Your task to perform on an android device: move an email to a new category in the gmail app Image 0: 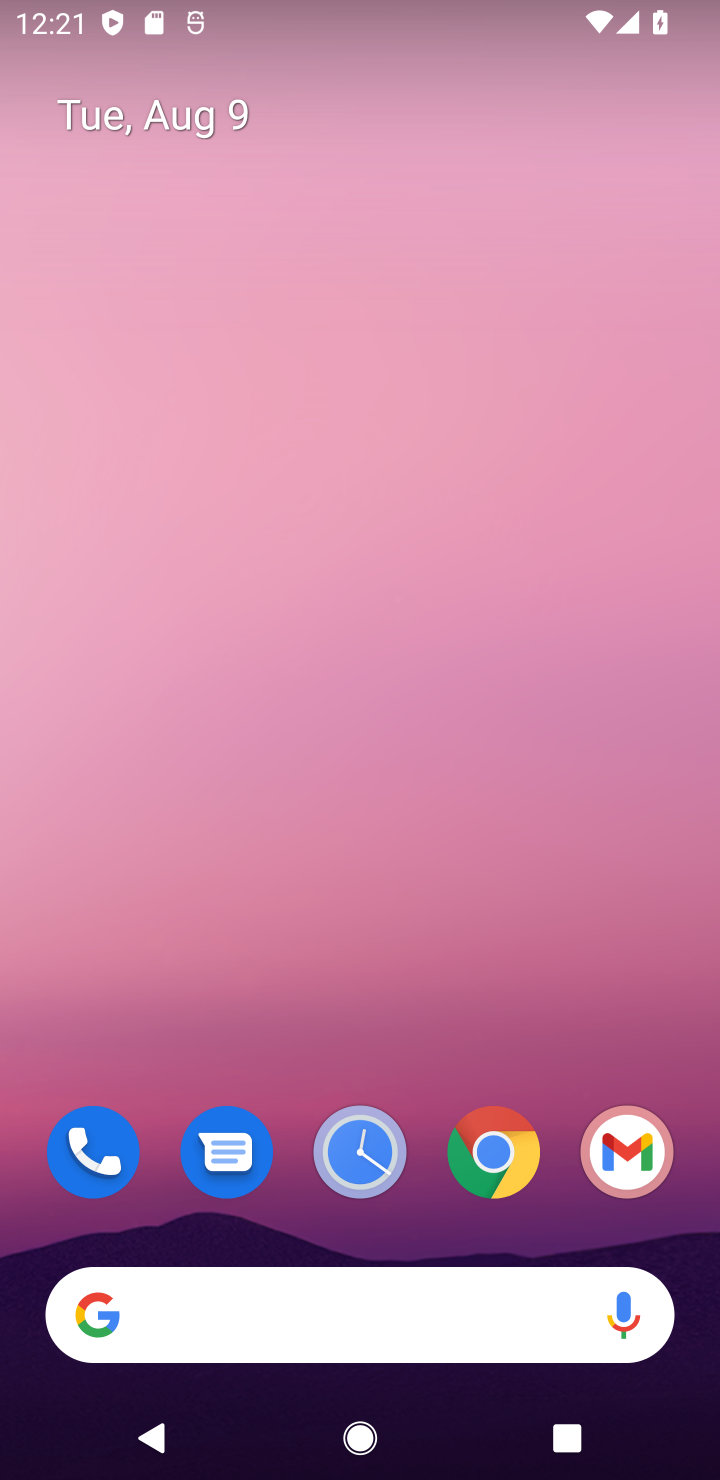
Step 0: drag from (393, 1071) to (342, 69)
Your task to perform on an android device: move an email to a new category in the gmail app Image 1: 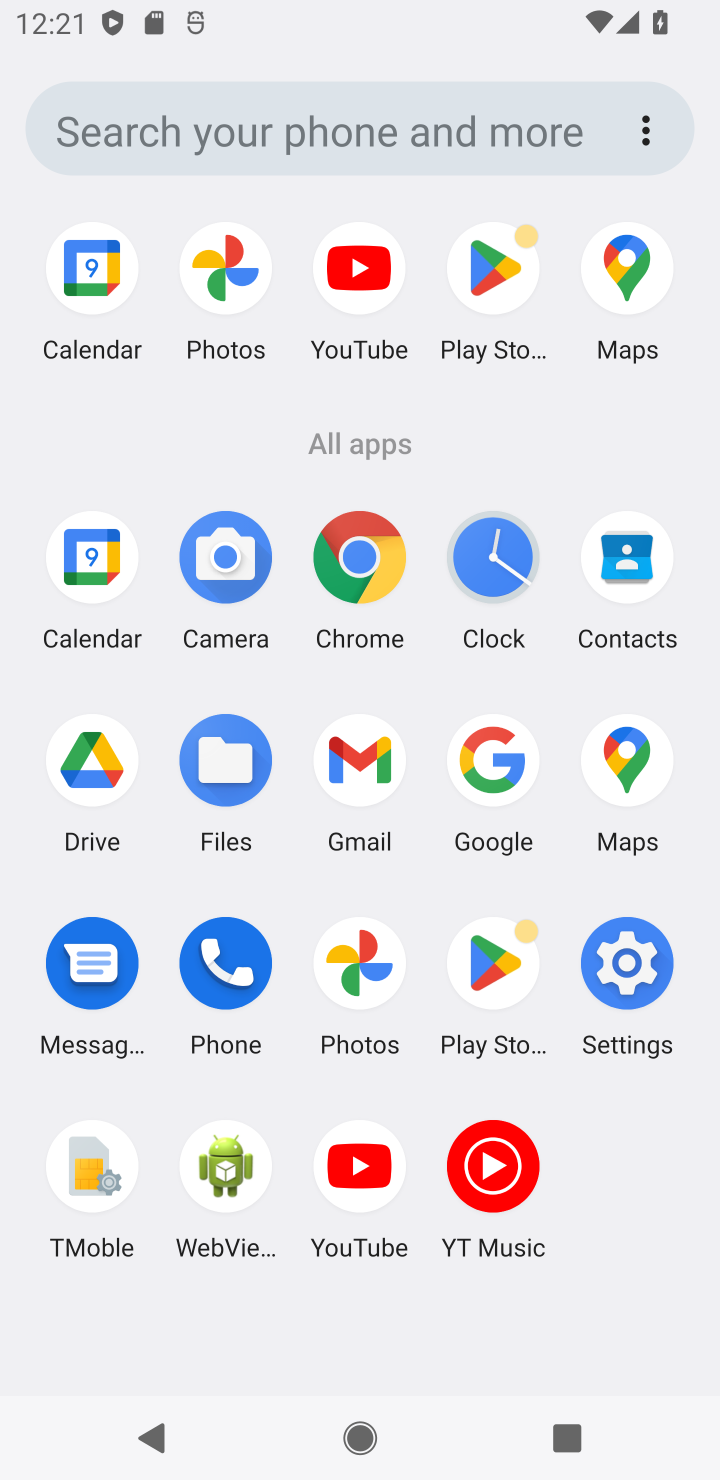
Step 1: click (338, 756)
Your task to perform on an android device: move an email to a new category in the gmail app Image 2: 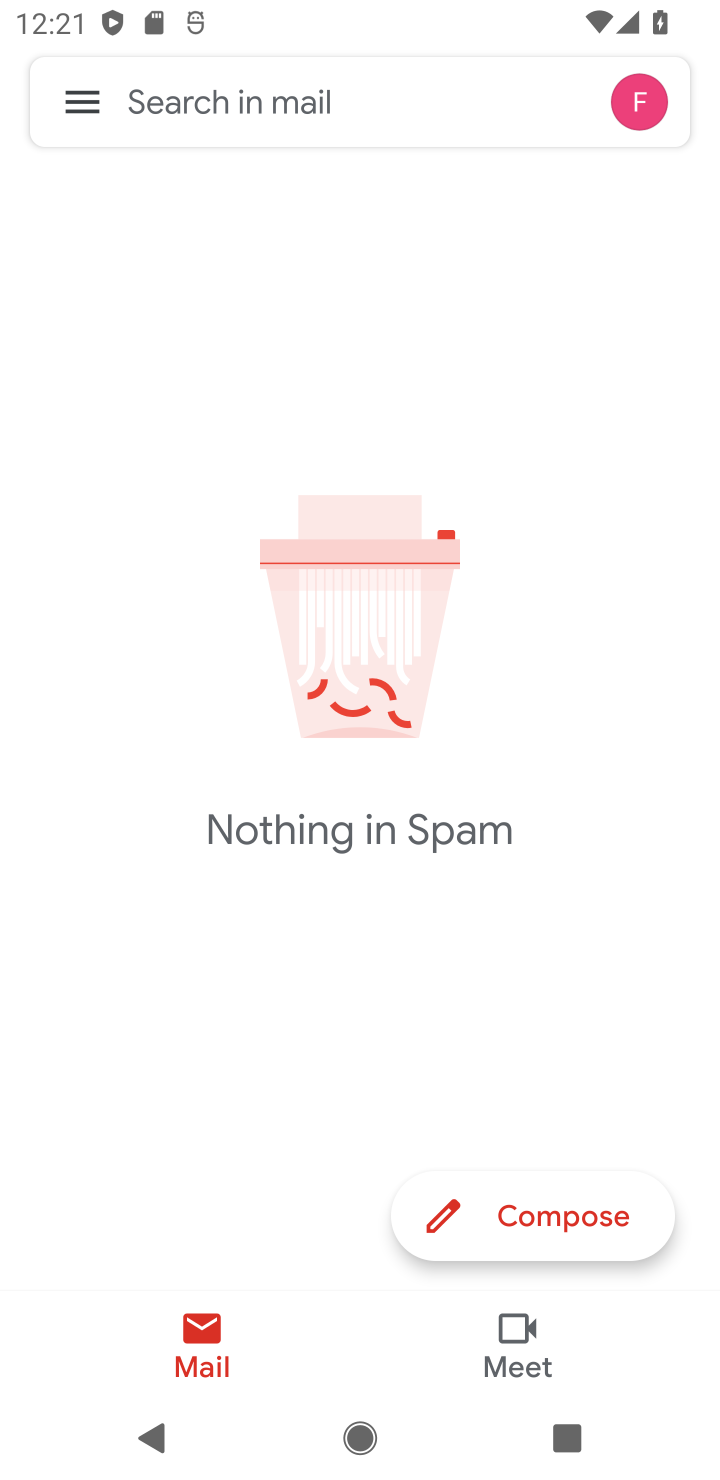
Step 2: click (75, 112)
Your task to perform on an android device: move an email to a new category in the gmail app Image 3: 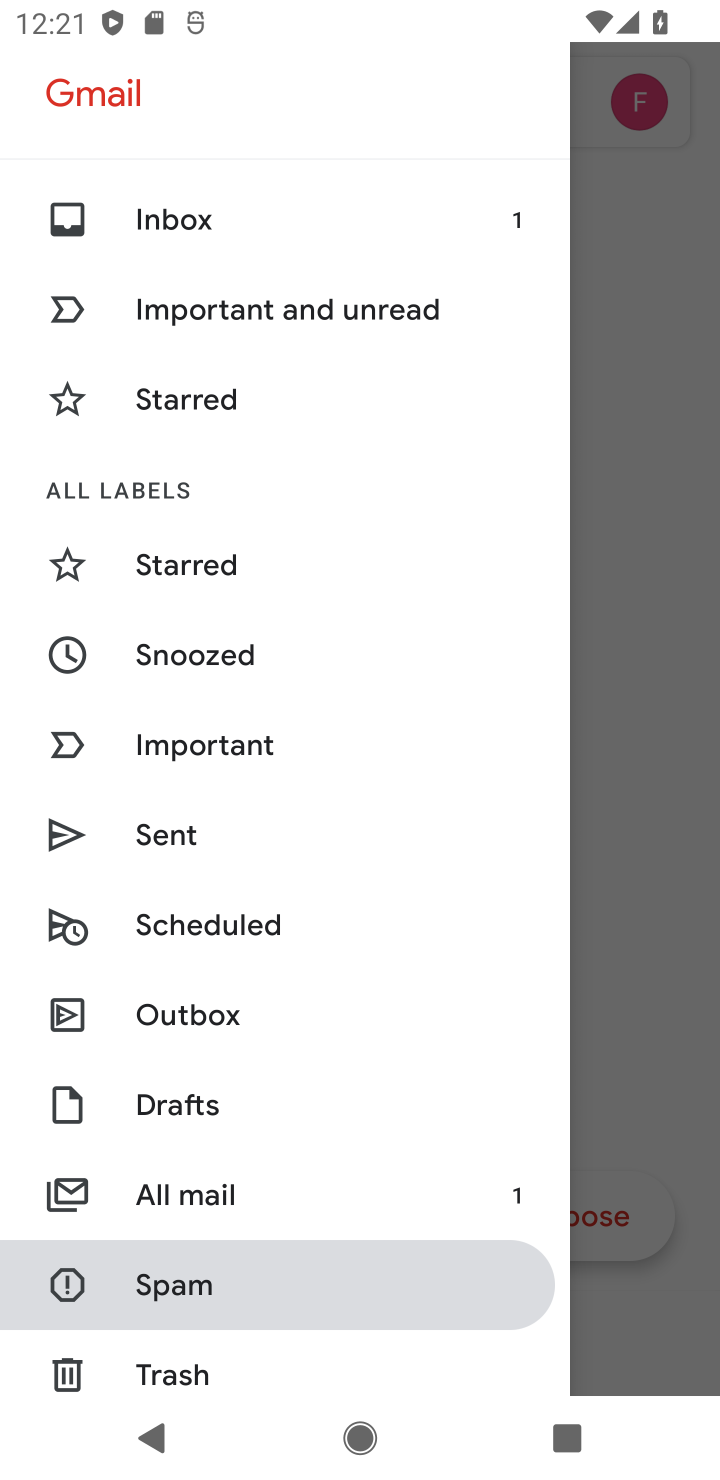
Step 3: drag from (311, 1222) to (286, 843)
Your task to perform on an android device: move an email to a new category in the gmail app Image 4: 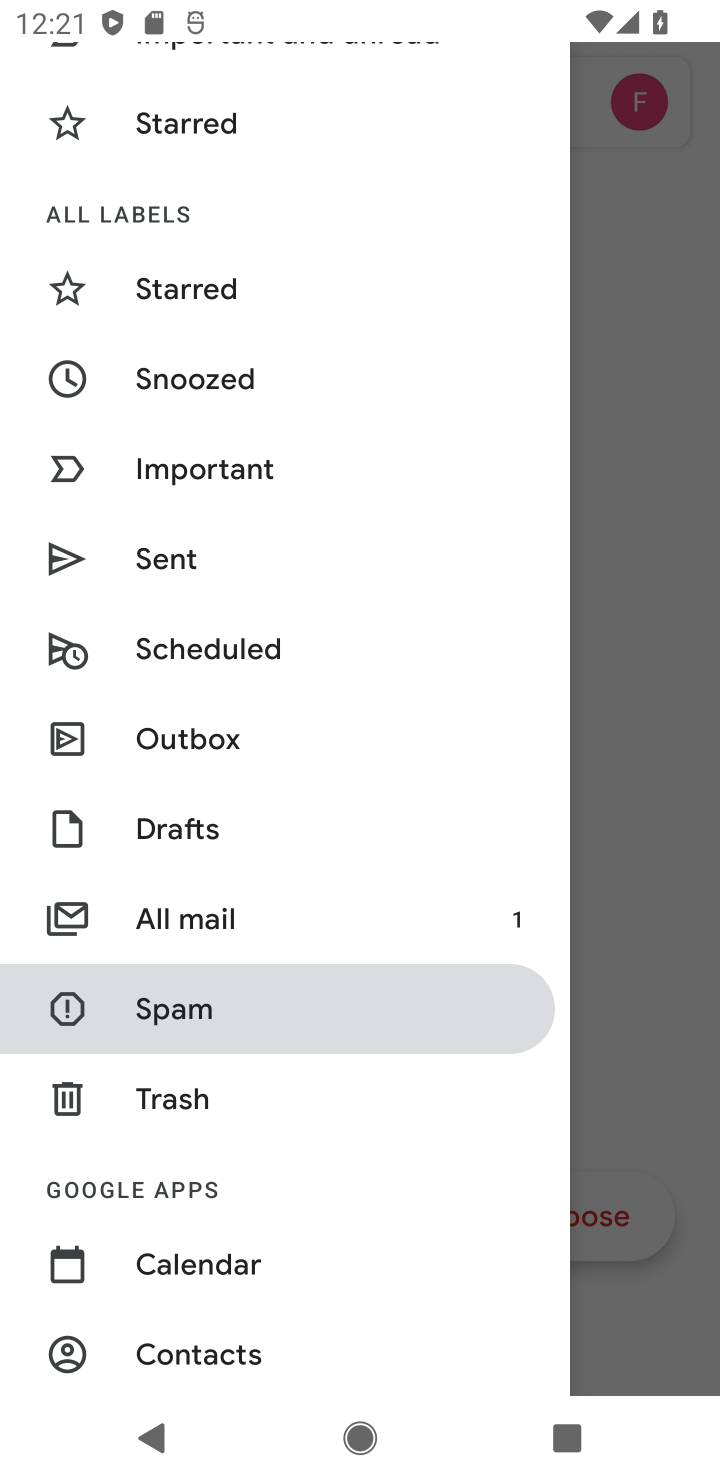
Step 4: click (200, 908)
Your task to perform on an android device: move an email to a new category in the gmail app Image 5: 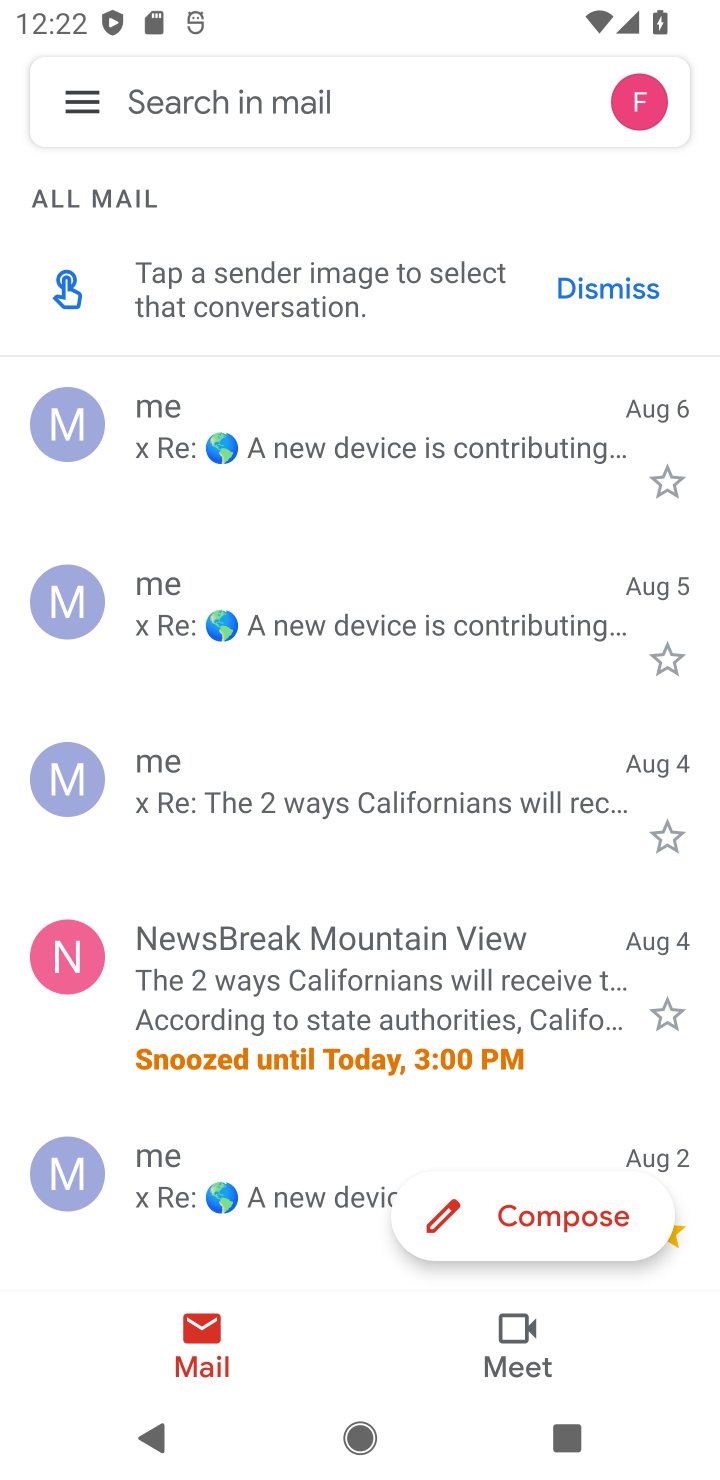
Step 5: click (223, 797)
Your task to perform on an android device: move an email to a new category in the gmail app Image 6: 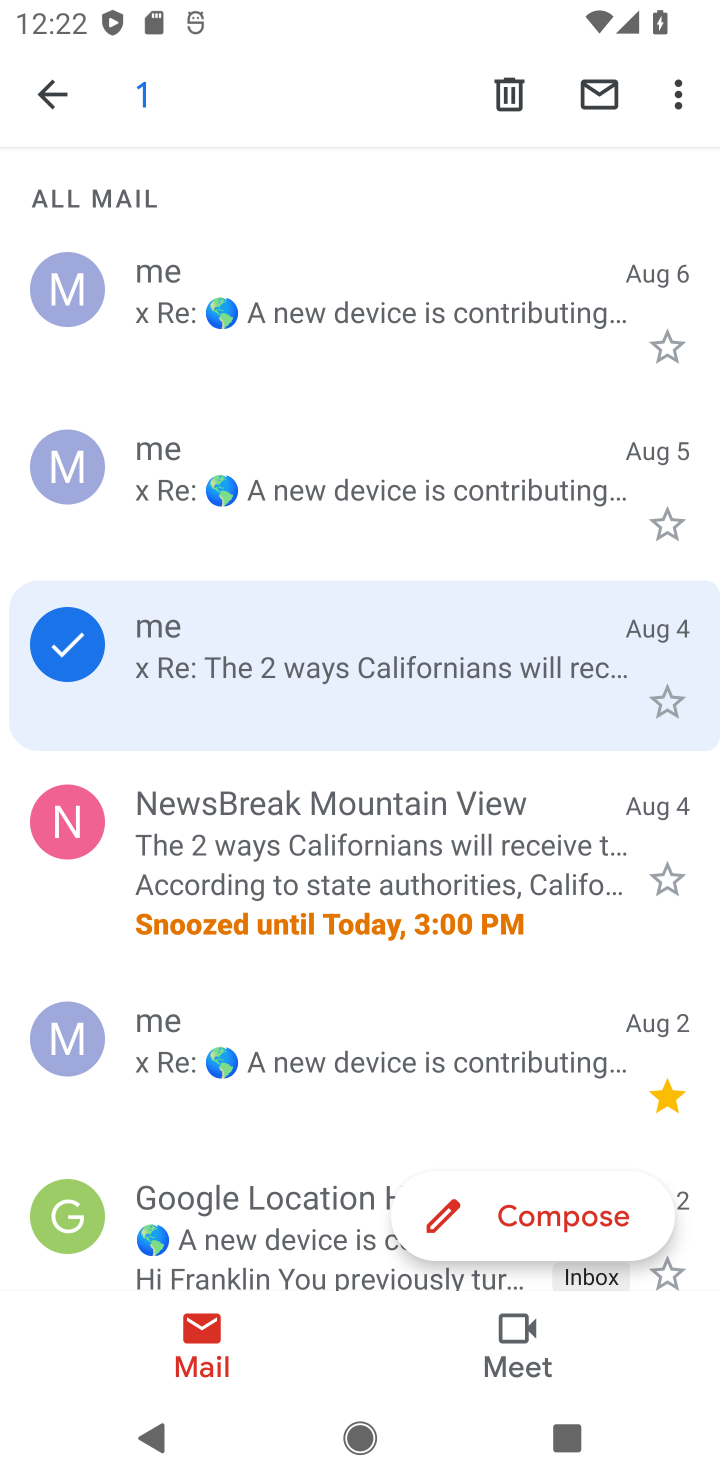
Step 6: click (676, 82)
Your task to perform on an android device: move an email to a new category in the gmail app Image 7: 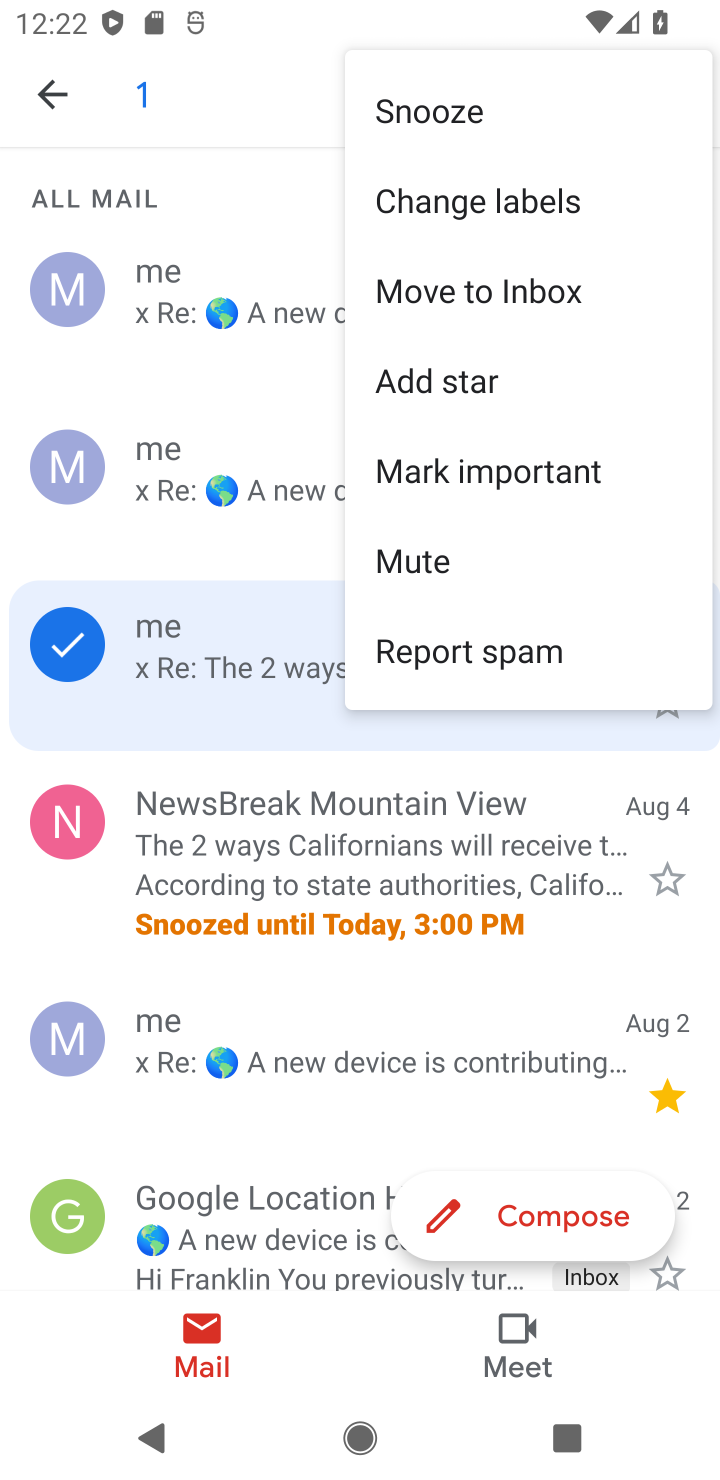
Step 7: click (463, 299)
Your task to perform on an android device: move an email to a new category in the gmail app Image 8: 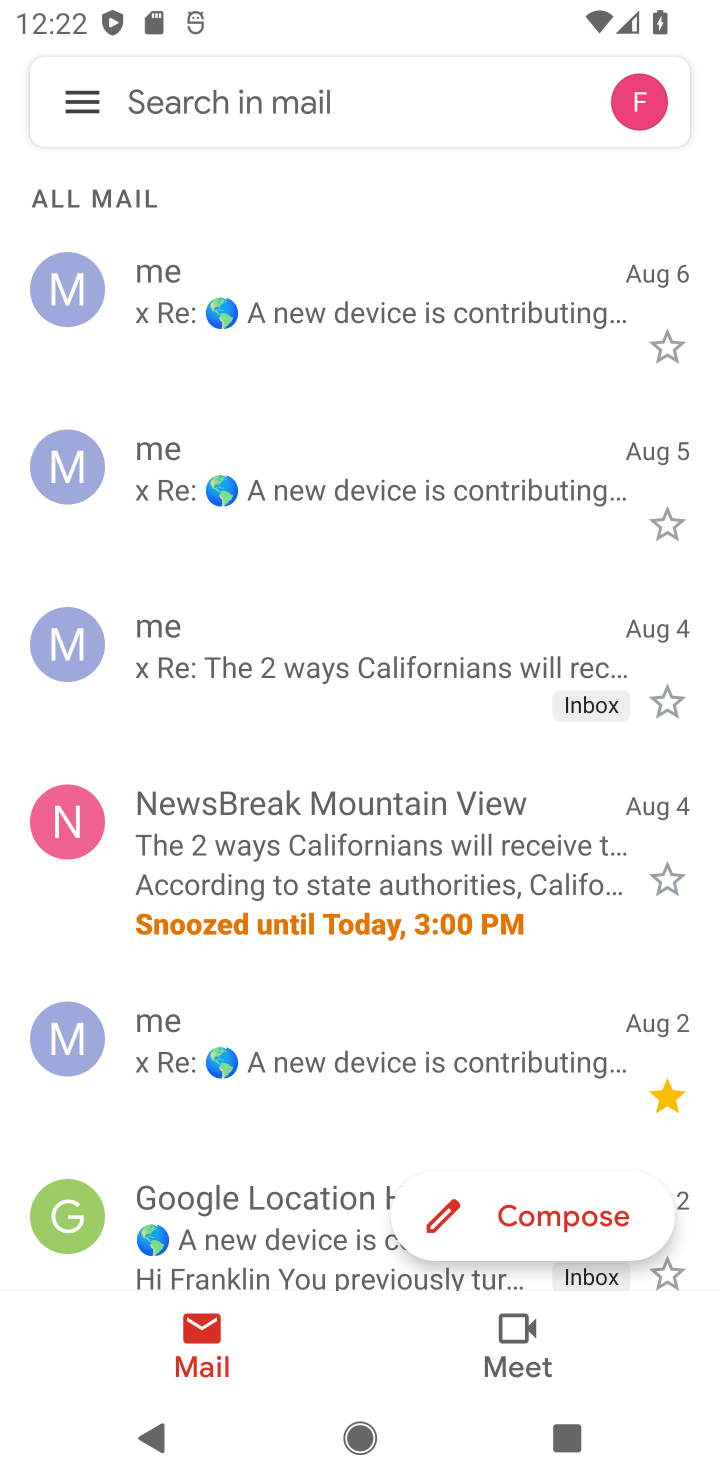
Step 8: task complete